Your task to perform on an android device: toggle notifications settings in the gmail app Image 0: 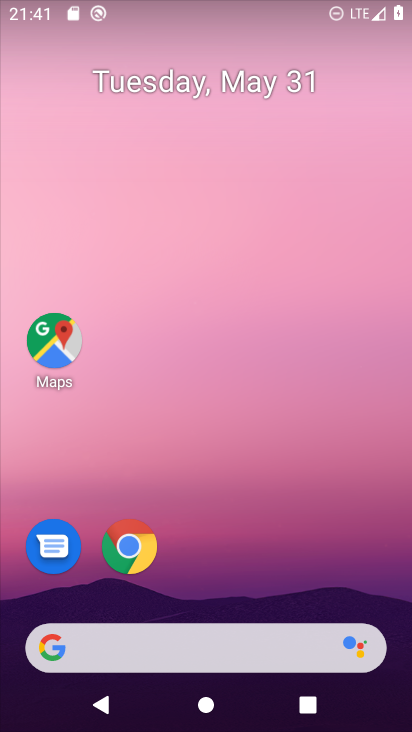
Step 0: drag from (396, 694) to (318, 167)
Your task to perform on an android device: toggle notifications settings in the gmail app Image 1: 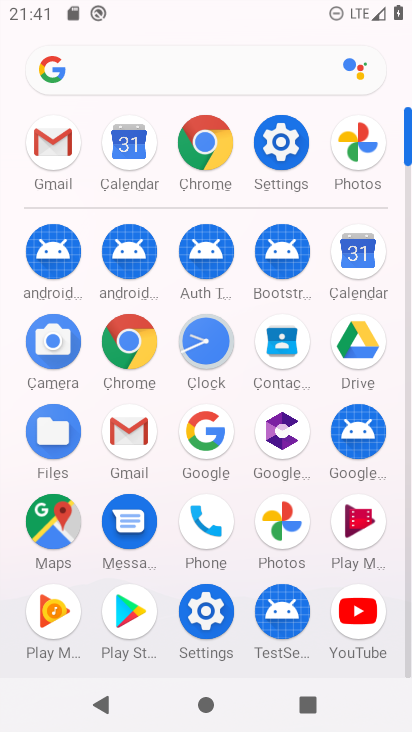
Step 1: click (55, 149)
Your task to perform on an android device: toggle notifications settings in the gmail app Image 2: 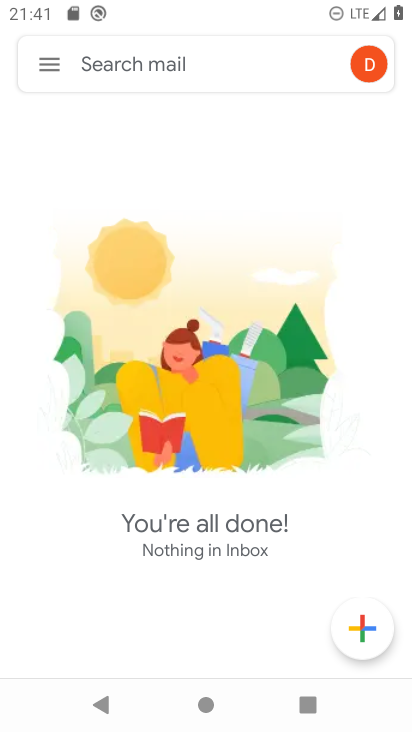
Step 2: click (56, 63)
Your task to perform on an android device: toggle notifications settings in the gmail app Image 3: 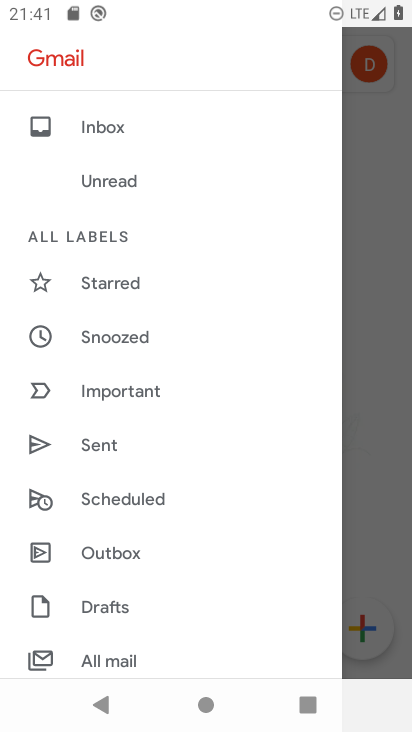
Step 3: drag from (213, 633) to (212, 215)
Your task to perform on an android device: toggle notifications settings in the gmail app Image 4: 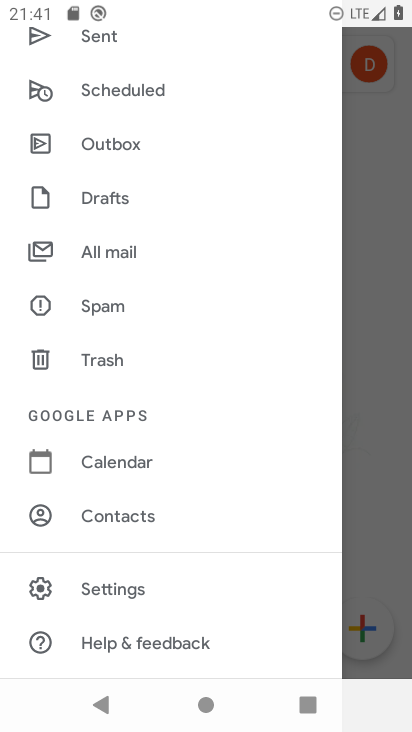
Step 4: click (111, 579)
Your task to perform on an android device: toggle notifications settings in the gmail app Image 5: 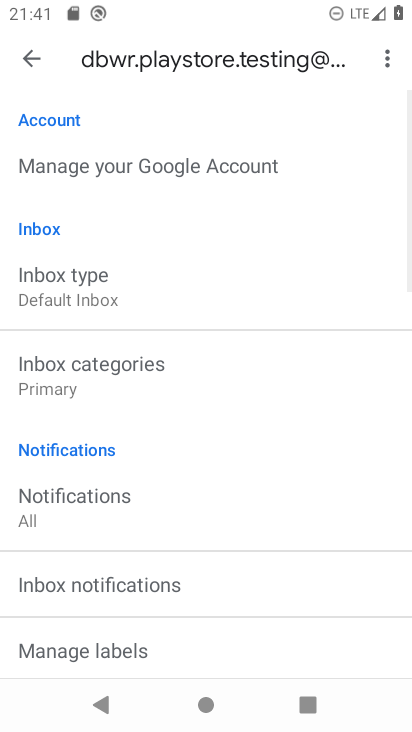
Step 5: click (64, 166)
Your task to perform on an android device: toggle notifications settings in the gmail app Image 6: 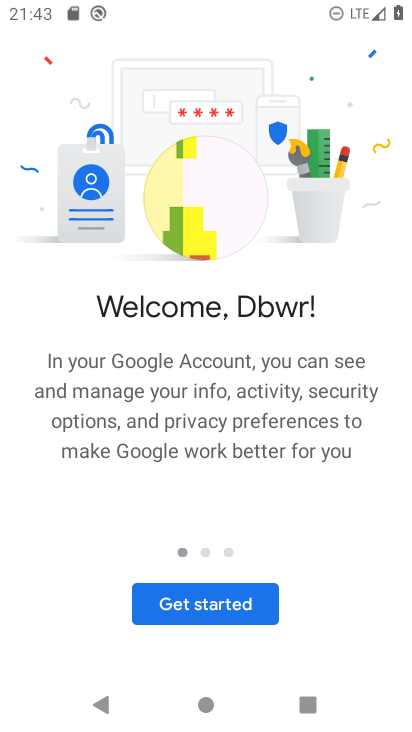
Step 6: press home button
Your task to perform on an android device: toggle notifications settings in the gmail app Image 7: 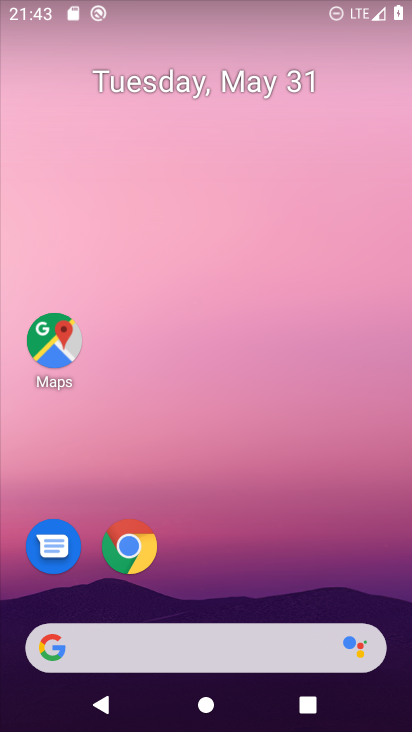
Step 7: drag from (384, 552) to (305, 72)
Your task to perform on an android device: toggle notifications settings in the gmail app Image 8: 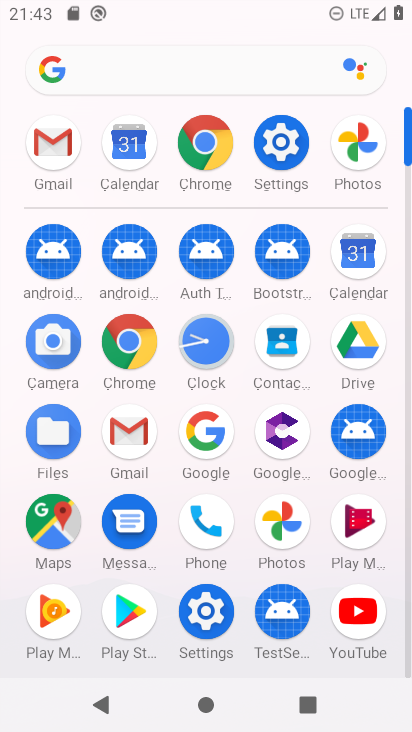
Step 8: click (49, 142)
Your task to perform on an android device: toggle notifications settings in the gmail app Image 9: 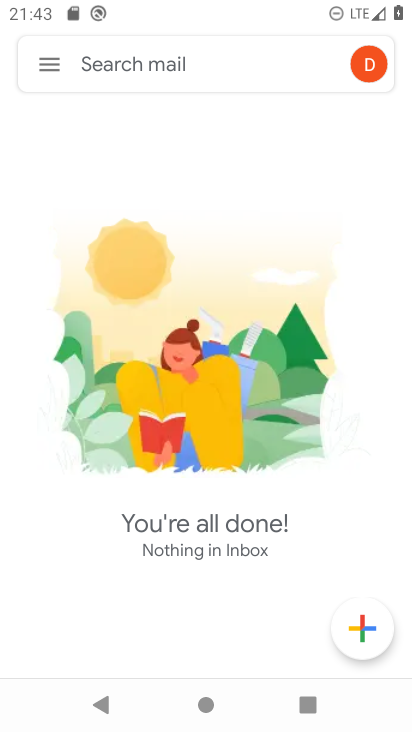
Step 9: click (43, 58)
Your task to perform on an android device: toggle notifications settings in the gmail app Image 10: 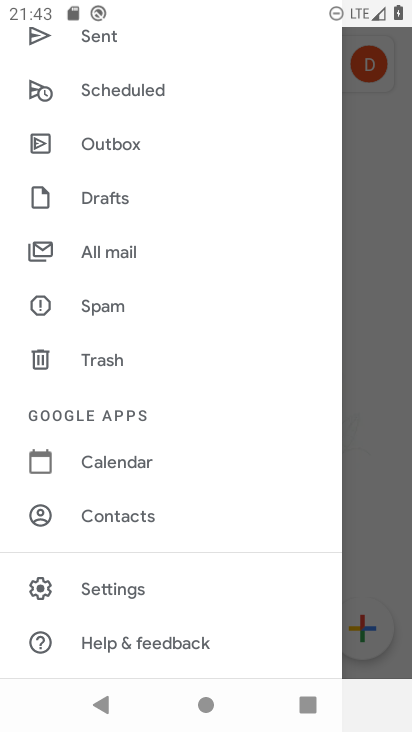
Step 10: drag from (242, 641) to (201, 263)
Your task to perform on an android device: toggle notifications settings in the gmail app Image 11: 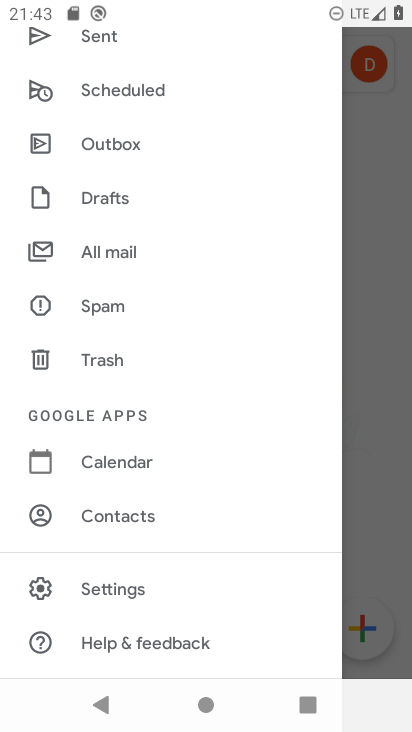
Step 11: click (71, 582)
Your task to perform on an android device: toggle notifications settings in the gmail app Image 12: 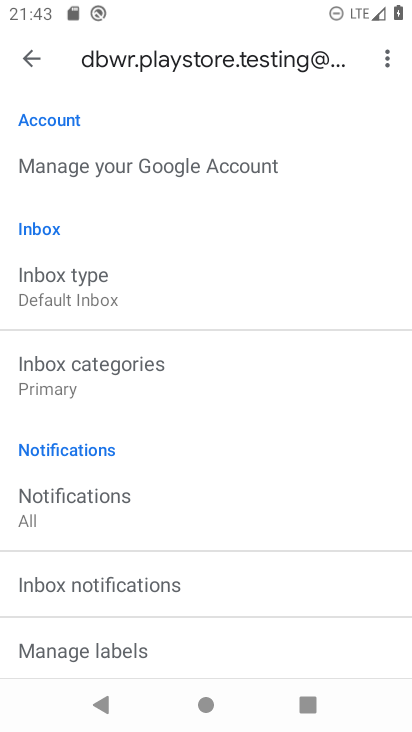
Step 12: click (34, 58)
Your task to perform on an android device: toggle notifications settings in the gmail app Image 13: 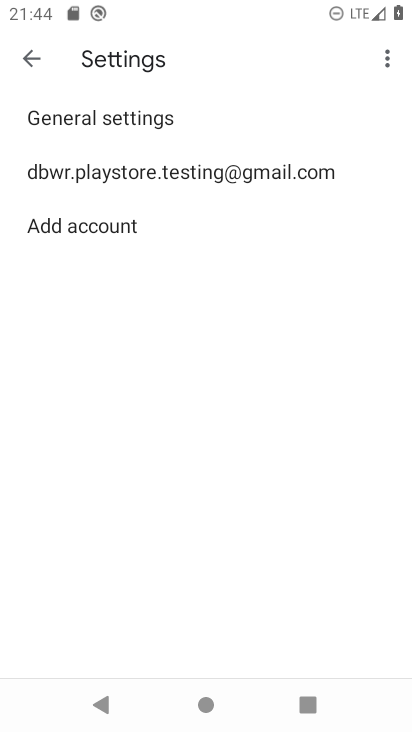
Step 13: click (83, 110)
Your task to perform on an android device: toggle notifications settings in the gmail app Image 14: 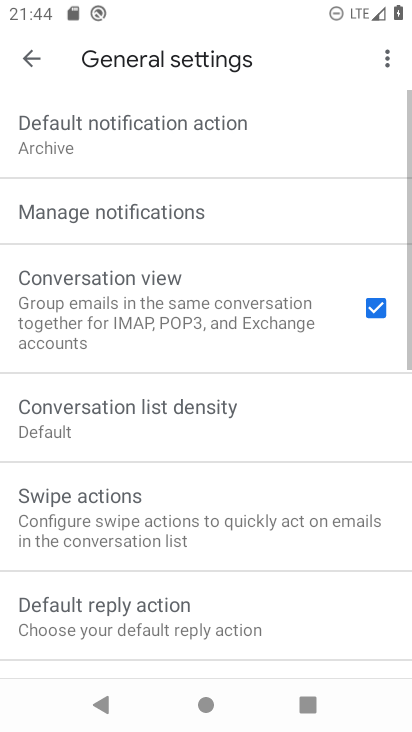
Step 14: click (99, 203)
Your task to perform on an android device: toggle notifications settings in the gmail app Image 15: 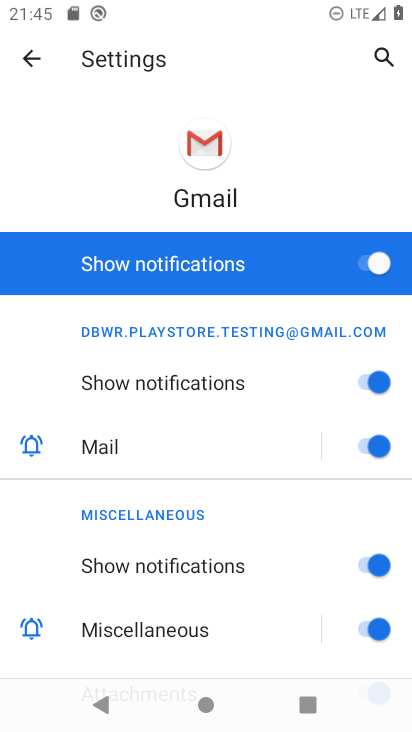
Step 15: click (371, 267)
Your task to perform on an android device: toggle notifications settings in the gmail app Image 16: 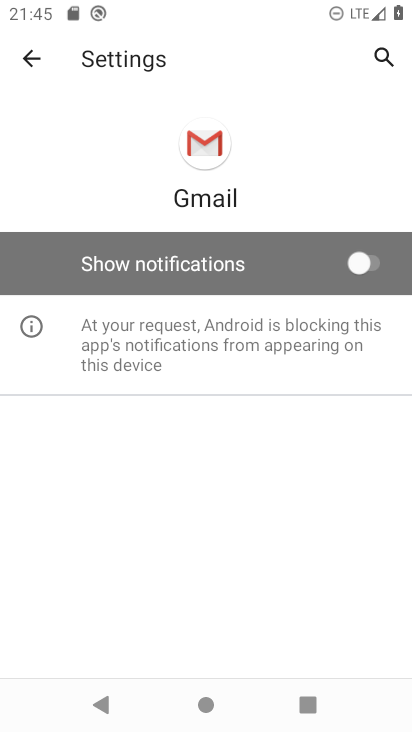
Step 16: task complete